Your task to perform on an android device: Open battery settings Image 0: 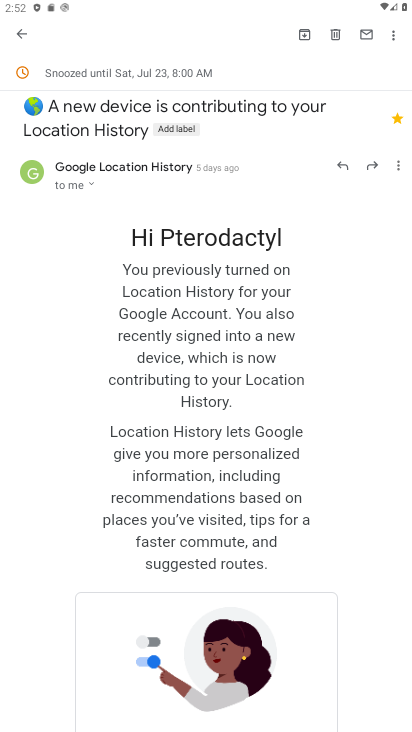
Step 0: press home button
Your task to perform on an android device: Open battery settings Image 1: 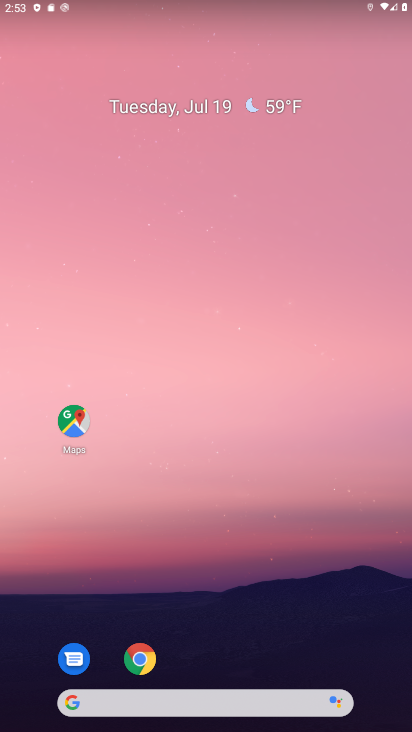
Step 1: drag from (208, 708) to (267, 289)
Your task to perform on an android device: Open battery settings Image 2: 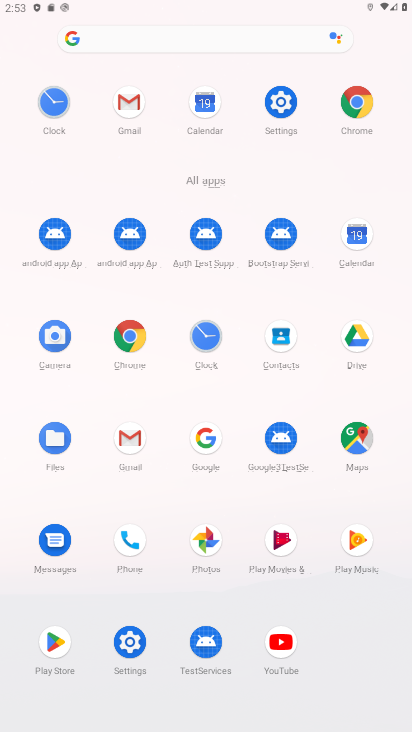
Step 2: click (282, 104)
Your task to perform on an android device: Open battery settings Image 3: 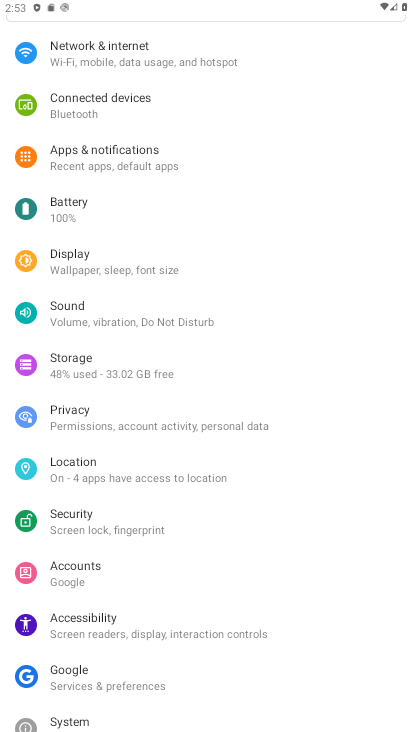
Step 3: click (65, 205)
Your task to perform on an android device: Open battery settings Image 4: 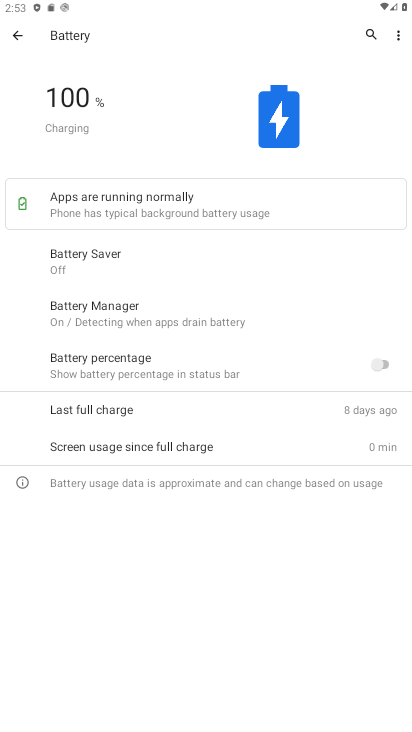
Step 4: task complete